Your task to perform on an android device: all mails in gmail Image 0: 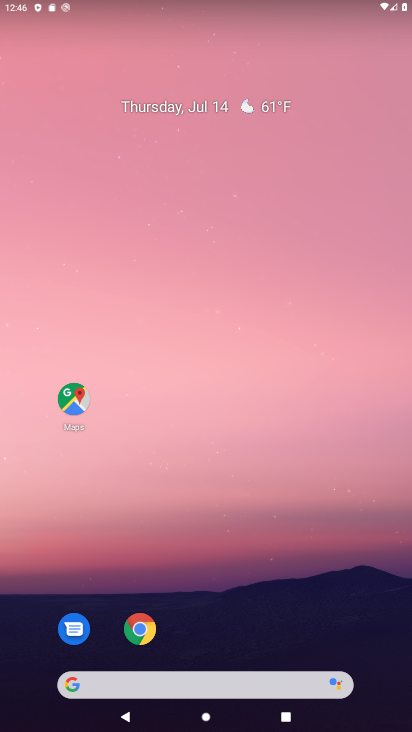
Step 0: drag from (225, 612) to (211, 158)
Your task to perform on an android device: all mails in gmail Image 1: 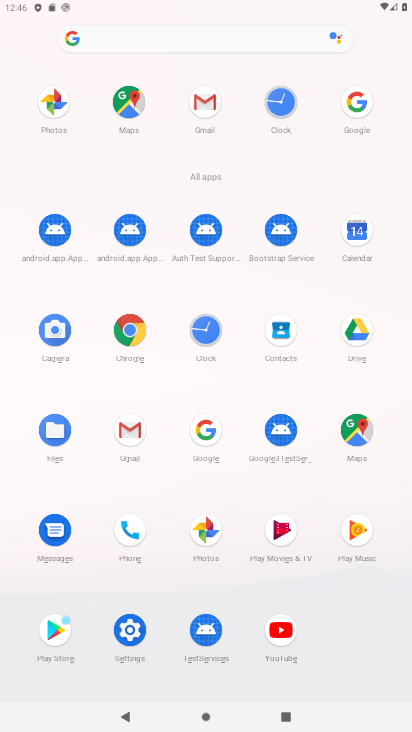
Step 1: click (209, 99)
Your task to perform on an android device: all mails in gmail Image 2: 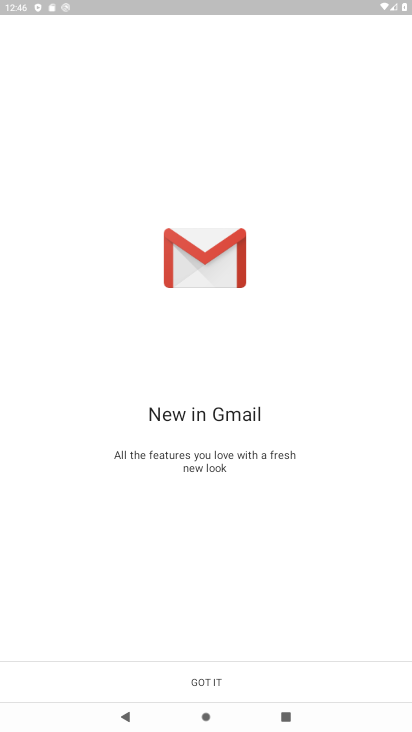
Step 2: click (201, 686)
Your task to perform on an android device: all mails in gmail Image 3: 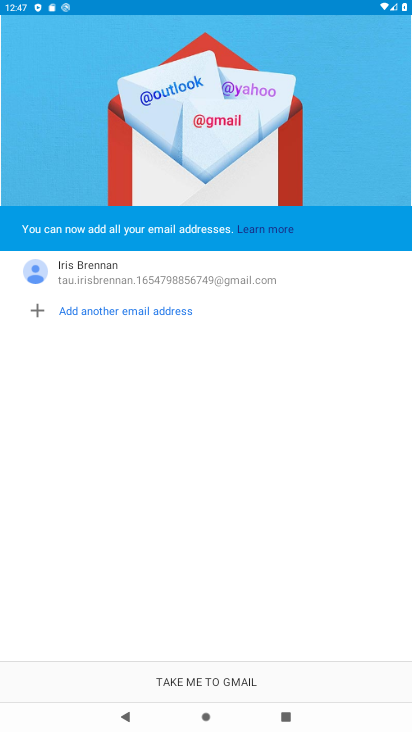
Step 3: click (206, 681)
Your task to perform on an android device: all mails in gmail Image 4: 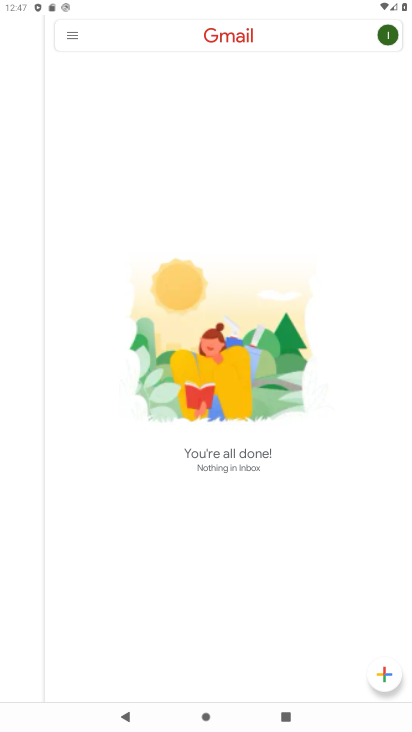
Step 4: click (76, 33)
Your task to perform on an android device: all mails in gmail Image 5: 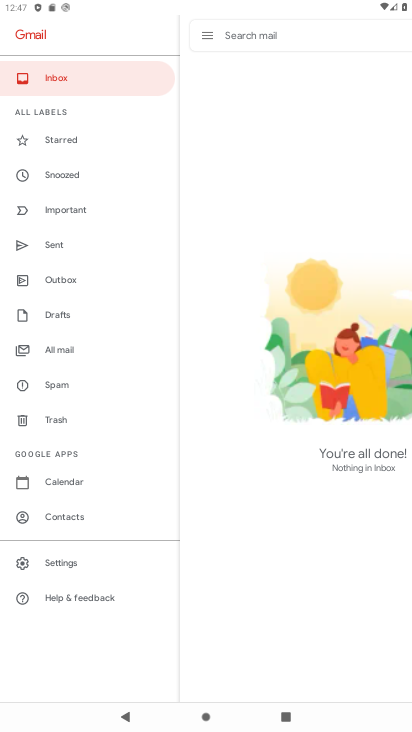
Step 5: click (70, 351)
Your task to perform on an android device: all mails in gmail Image 6: 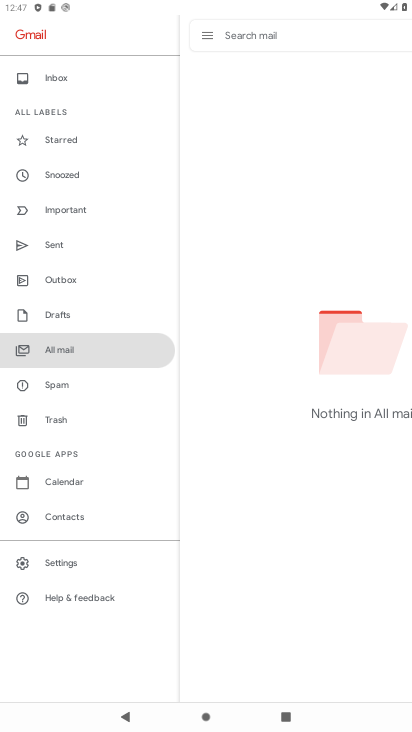
Step 6: task complete